Your task to perform on an android device: turn off translation in the chrome app Image 0: 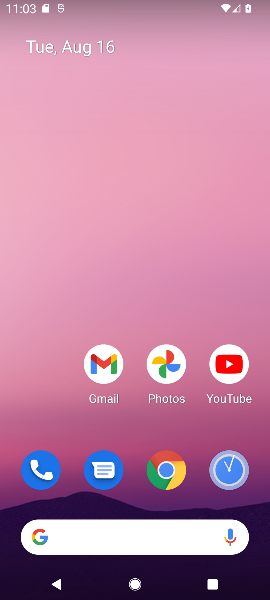
Step 0: click (162, 466)
Your task to perform on an android device: turn off translation in the chrome app Image 1: 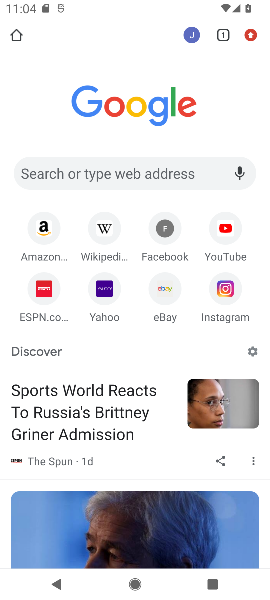
Step 1: click (250, 34)
Your task to perform on an android device: turn off translation in the chrome app Image 2: 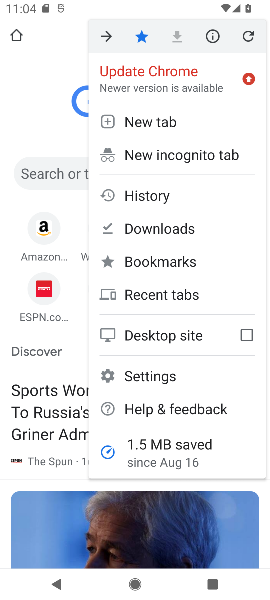
Step 2: click (149, 374)
Your task to perform on an android device: turn off translation in the chrome app Image 3: 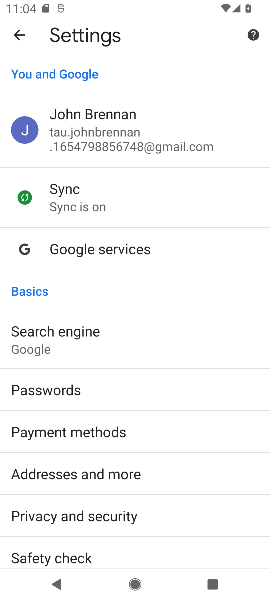
Step 3: drag from (167, 492) to (145, 93)
Your task to perform on an android device: turn off translation in the chrome app Image 4: 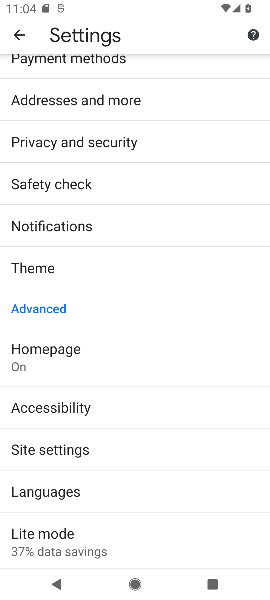
Step 4: click (85, 446)
Your task to perform on an android device: turn off translation in the chrome app Image 5: 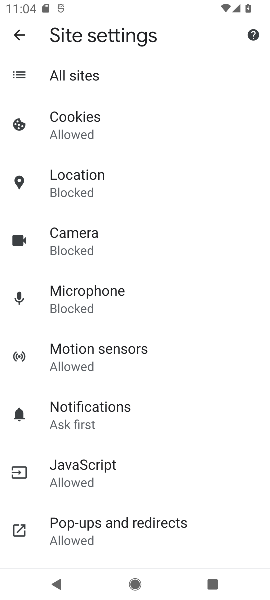
Step 5: drag from (158, 457) to (130, 117)
Your task to perform on an android device: turn off translation in the chrome app Image 6: 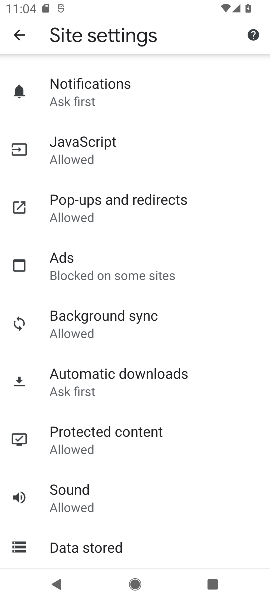
Step 6: drag from (133, 213) to (151, 442)
Your task to perform on an android device: turn off translation in the chrome app Image 7: 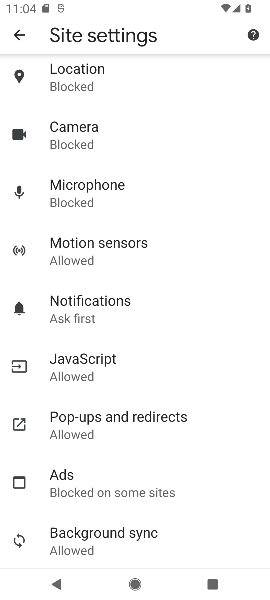
Step 7: click (18, 36)
Your task to perform on an android device: turn off translation in the chrome app Image 8: 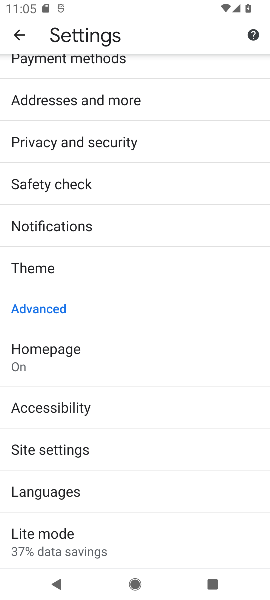
Step 8: click (73, 492)
Your task to perform on an android device: turn off translation in the chrome app Image 9: 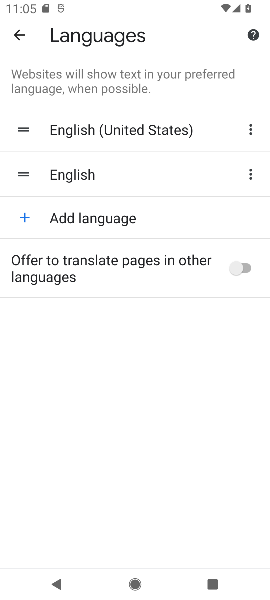
Step 9: click (234, 263)
Your task to perform on an android device: turn off translation in the chrome app Image 10: 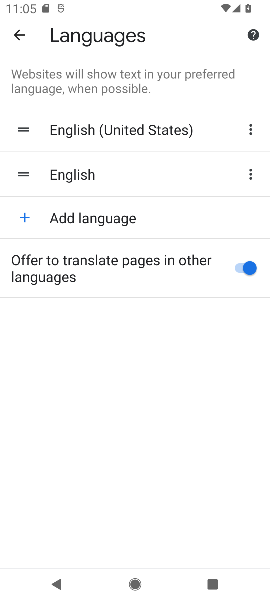
Step 10: task complete